Your task to perform on an android device: Play the last video I watched on Youtube Image 0: 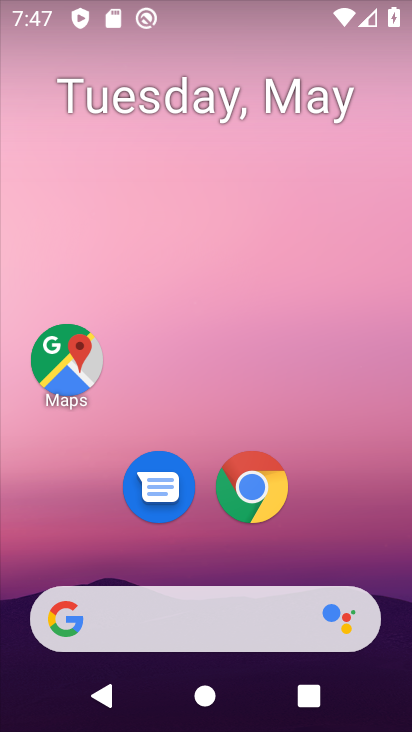
Step 0: drag from (368, 556) to (375, 250)
Your task to perform on an android device: Play the last video I watched on Youtube Image 1: 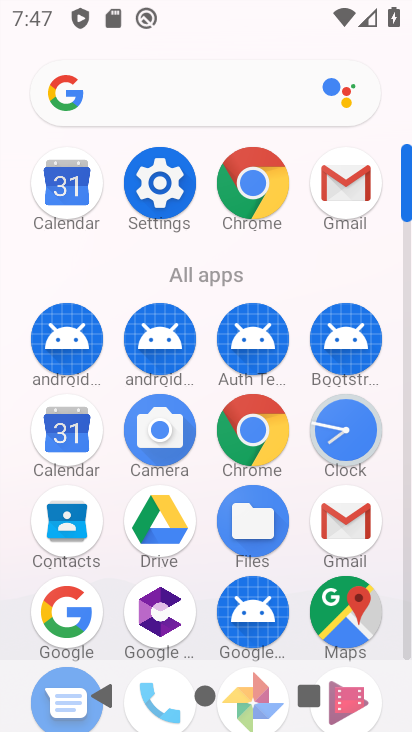
Step 1: drag from (385, 575) to (397, 262)
Your task to perform on an android device: Play the last video I watched on Youtube Image 2: 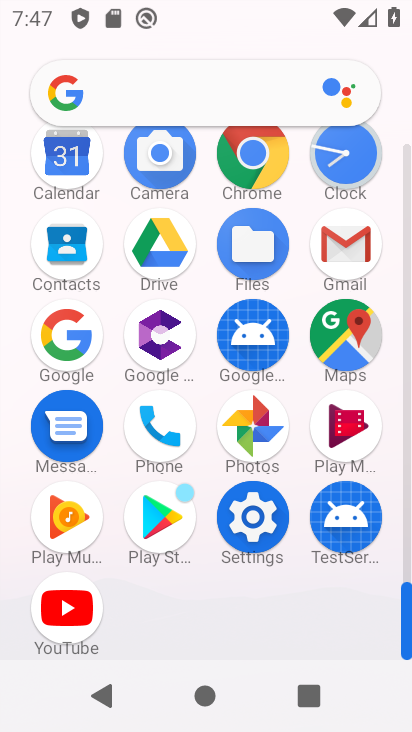
Step 2: click (66, 620)
Your task to perform on an android device: Play the last video I watched on Youtube Image 3: 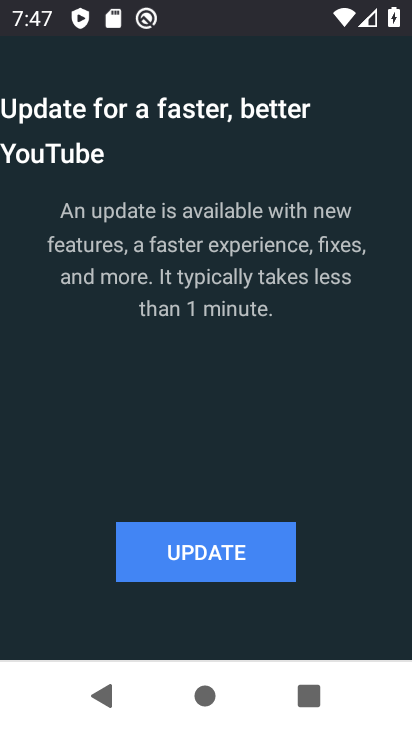
Step 3: click (170, 567)
Your task to perform on an android device: Play the last video I watched on Youtube Image 4: 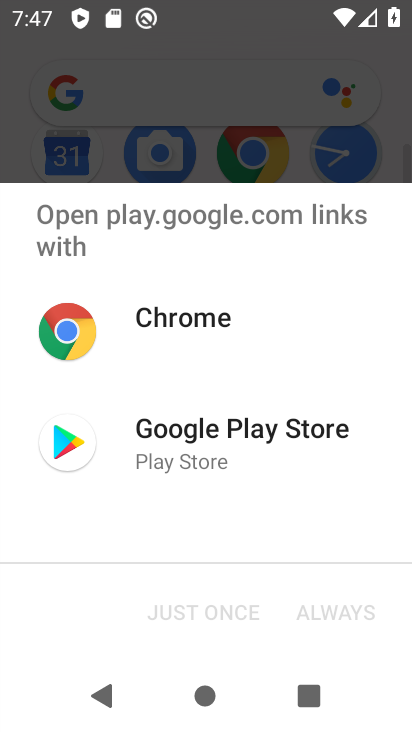
Step 4: click (180, 455)
Your task to perform on an android device: Play the last video I watched on Youtube Image 5: 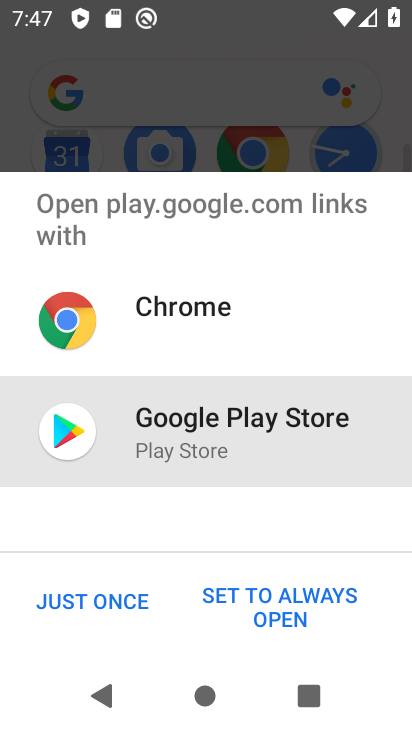
Step 5: click (110, 604)
Your task to perform on an android device: Play the last video I watched on Youtube Image 6: 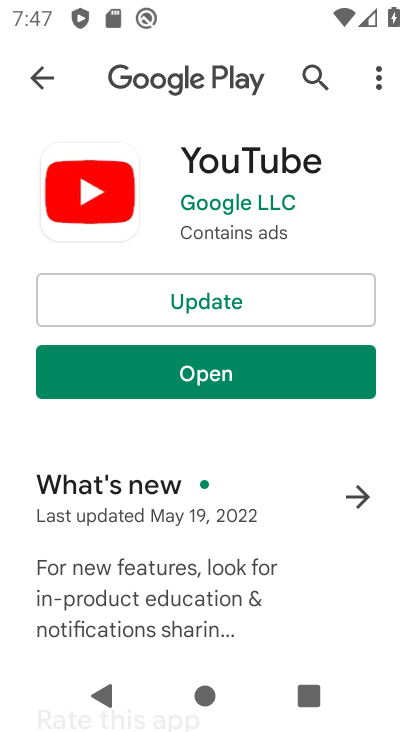
Step 6: click (192, 306)
Your task to perform on an android device: Play the last video I watched on Youtube Image 7: 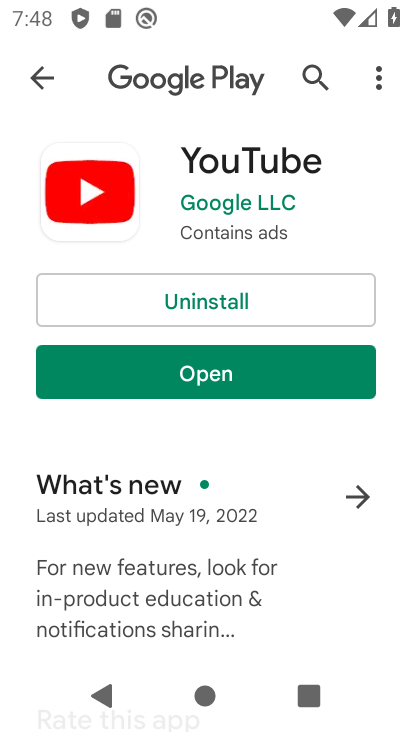
Step 7: click (313, 382)
Your task to perform on an android device: Play the last video I watched on Youtube Image 8: 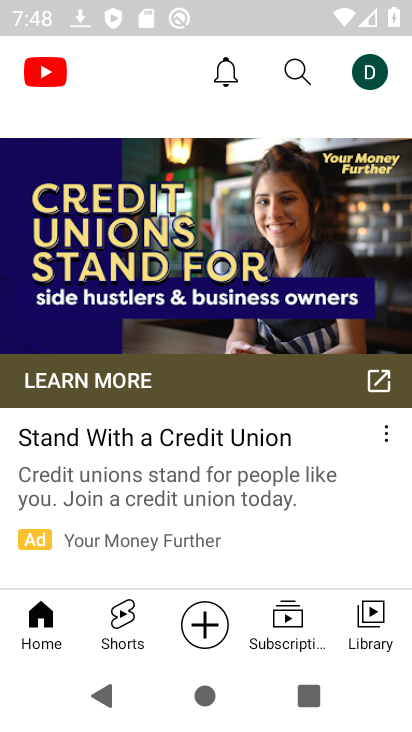
Step 8: click (377, 619)
Your task to perform on an android device: Play the last video I watched on Youtube Image 9: 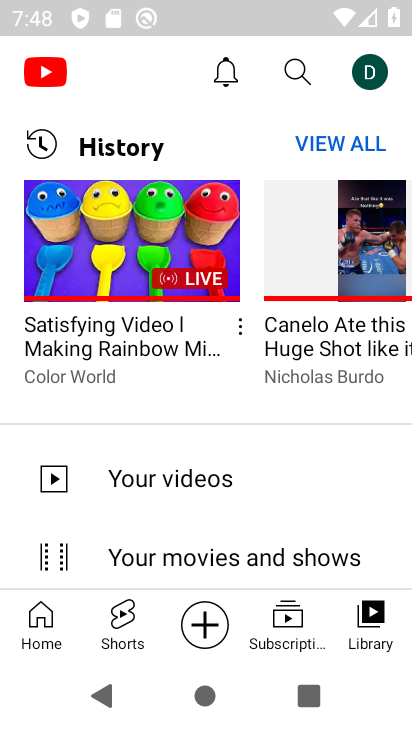
Step 9: click (138, 238)
Your task to perform on an android device: Play the last video I watched on Youtube Image 10: 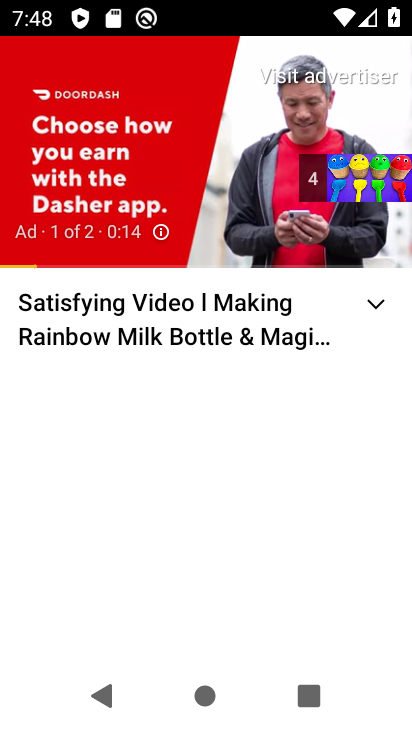
Step 10: task complete